Your task to perform on an android device: Open Google Maps and go to "Timeline" Image 0: 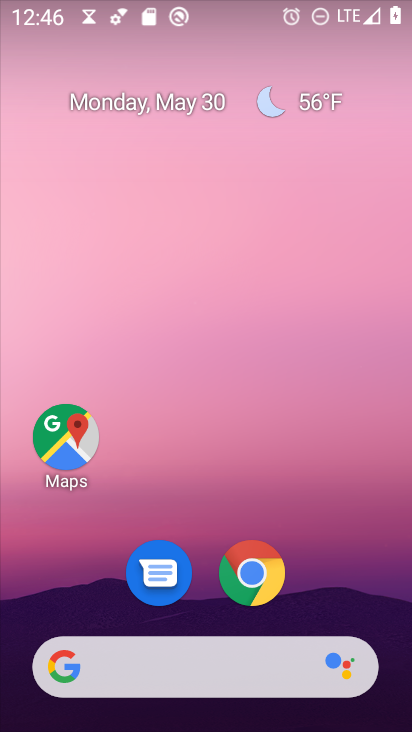
Step 0: drag from (251, 5) to (135, 2)
Your task to perform on an android device: Open Google Maps and go to "Timeline" Image 1: 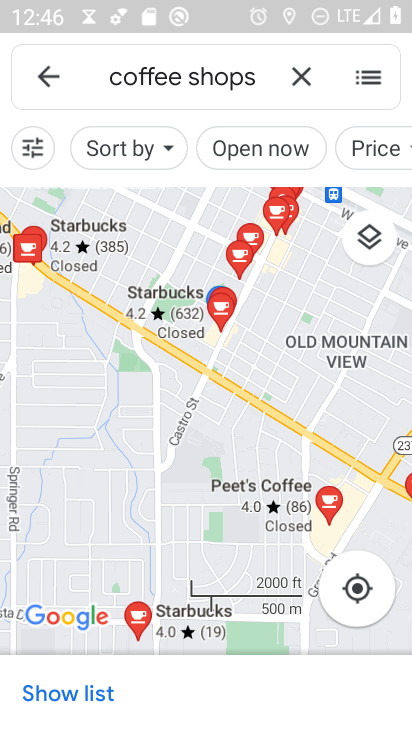
Step 1: press home button
Your task to perform on an android device: Open Google Maps and go to "Timeline" Image 2: 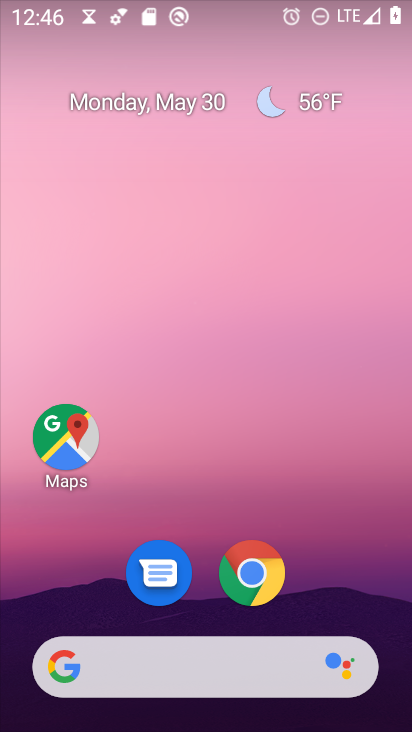
Step 2: drag from (283, 634) to (311, 153)
Your task to perform on an android device: Open Google Maps and go to "Timeline" Image 3: 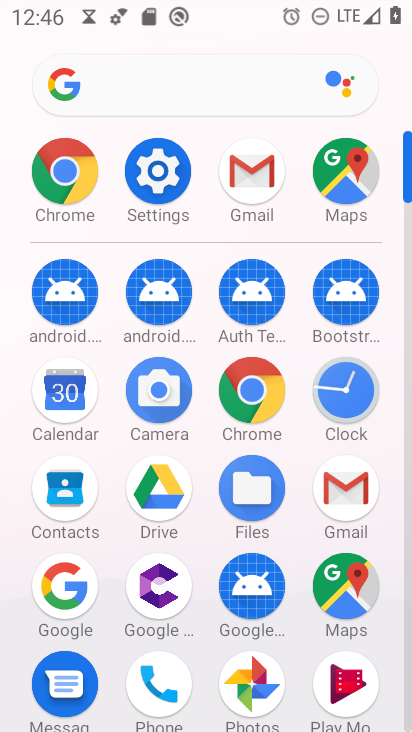
Step 3: click (326, 598)
Your task to perform on an android device: Open Google Maps and go to "Timeline" Image 4: 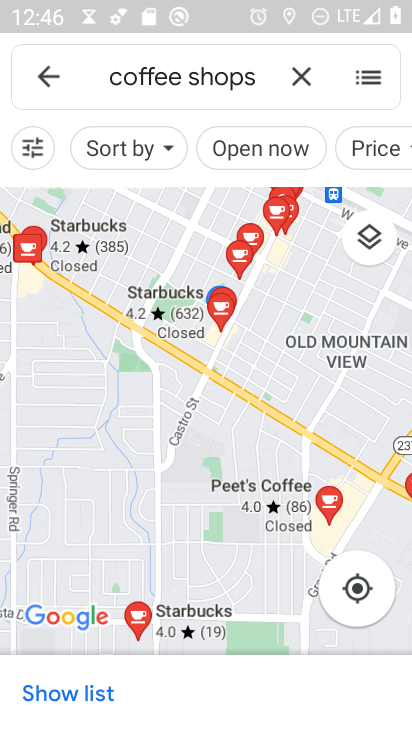
Step 4: press back button
Your task to perform on an android device: Open Google Maps and go to "Timeline" Image 5: 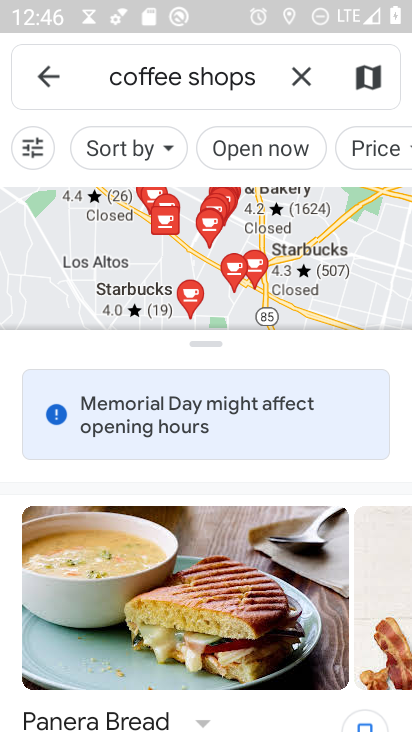
Step 5: press back button
Your task to perform on an android device: Open Google Maps and go to "Timeline" Image 6: 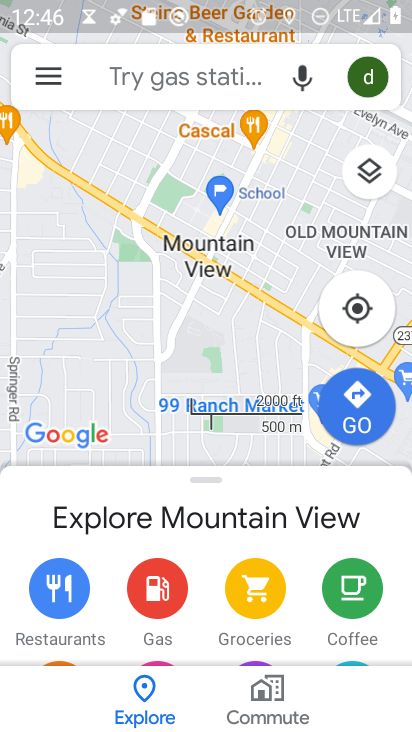
Step 6: click (56, 82)
Your task to perform on an android device: Open Google Maps and go to "Timeline" Image 7: 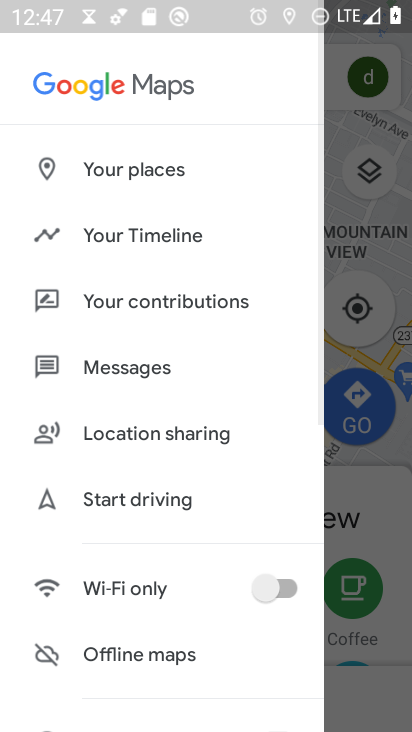
Step 7: click (171, 244)
Your task to perform on an android device: Open Google Maps and go to "Timeline" Image 8: 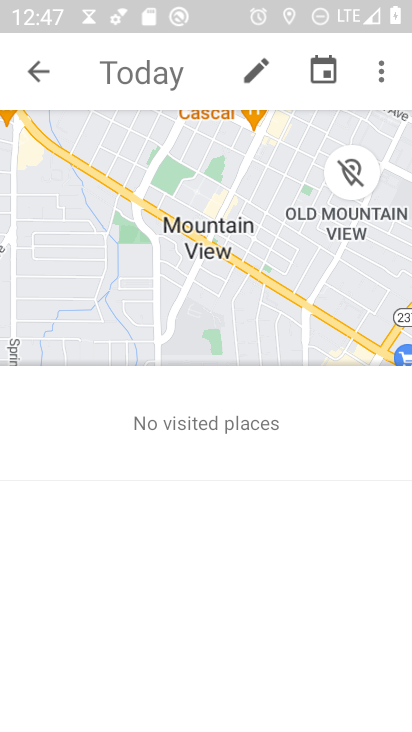
Step 8: task complete